Your task to perform on an android device: see sites visited before in the chrome app Image 0: 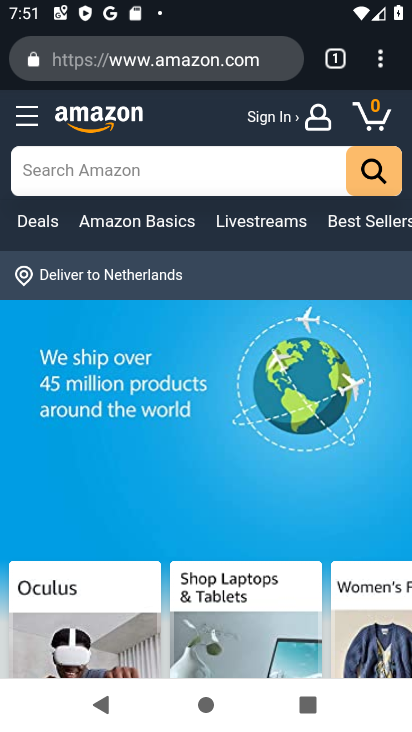
Step 0: press home button
Your task to perform on an android device: see sites visited before in the chrome app Image 1: 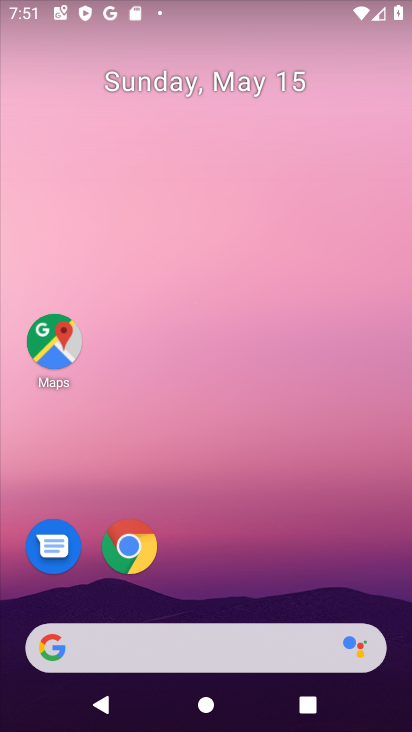
Step 1: drag from (237, 515) to (271, 43)
Your task to perform on an android device: see sites visited before in the chrome app Image 2: 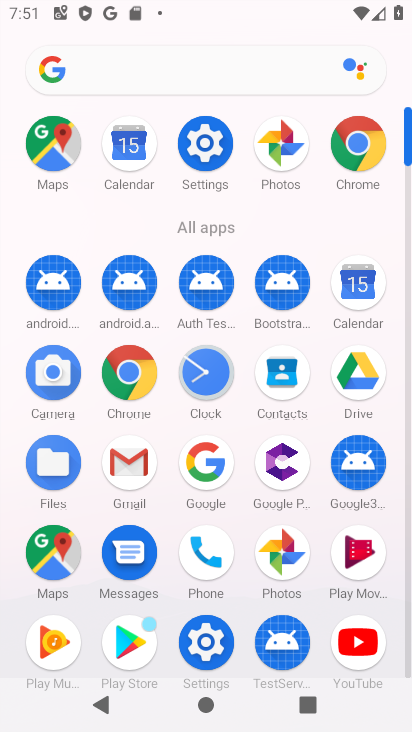
Step 2: click (354, 144)
Your task to perform on an android device: see sites visited before in the chrome app Image 3: 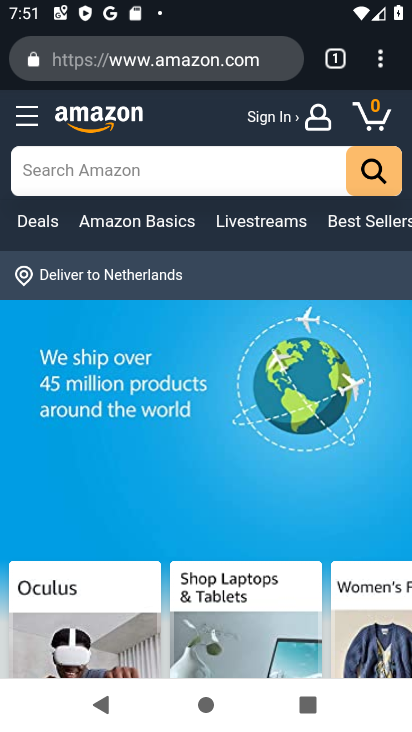
Step 3: click (386, 64)
Your task to perform on an android device: see sites visited before in the chrome app Image 4: 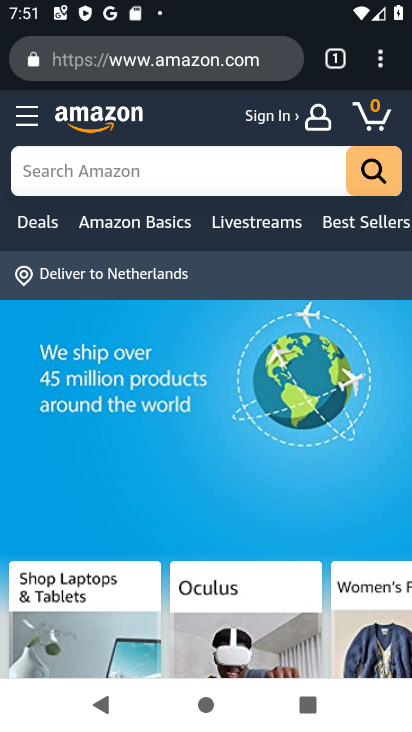
Step 4: click (382, 58)
Your task to perform on an android device: see sites visited before in the chrome app Image 5: 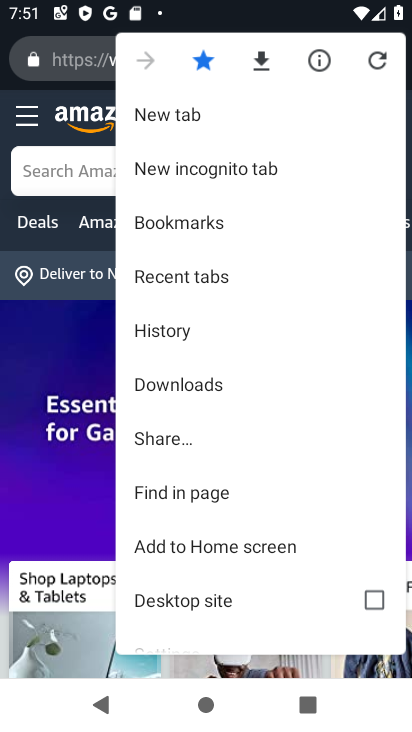
Step 5: click (218, 272)
Your task to perform on an android device: see sites visited before in the chrome app Image 6: 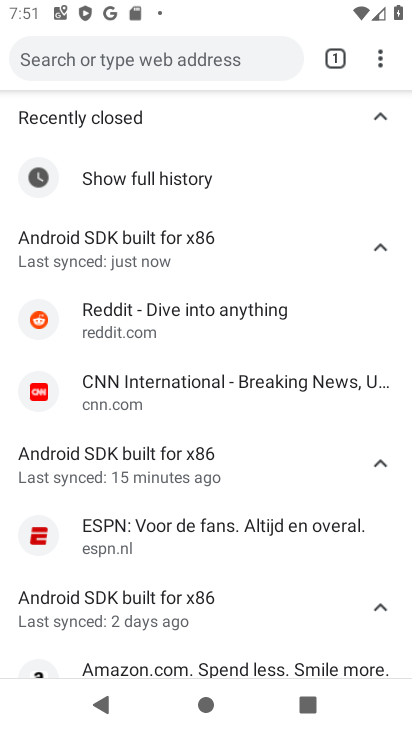
Step 6: task complete